Your task to perform on an android device: Play the last video I watched on Youtube Image 0: 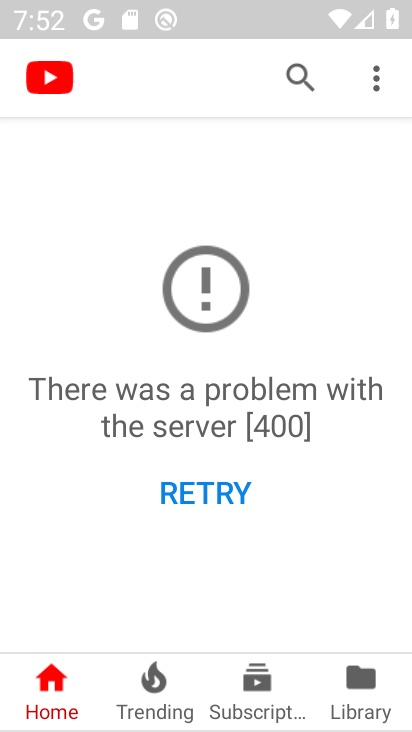
Step 0: press home button
Your task to perform on an android device: Play the last video I watched on Youtube Image 1: 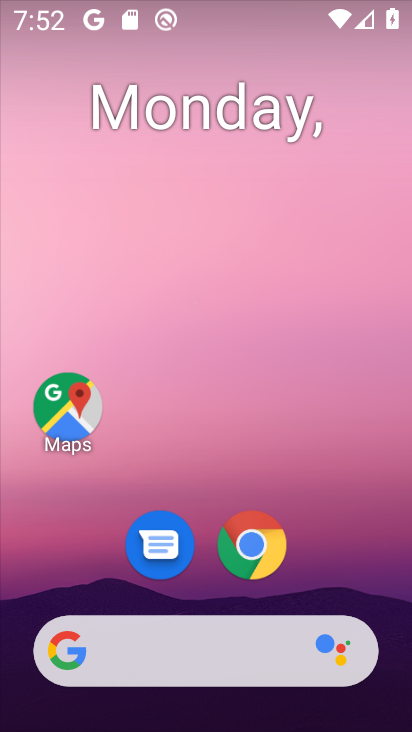
Step 1: drag from (182, 657) to (337, 142)
Your task to perform on an android device: Play the last video I watched on Youtube Image 2: 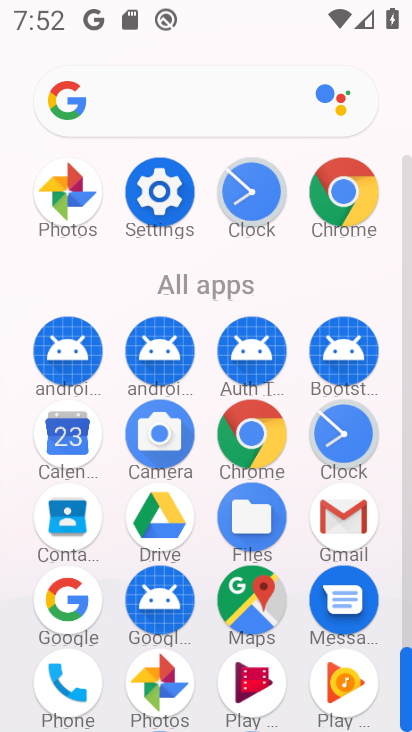
Step 2: drag from (207, 619) to (349, 153)
Your task to perform on an android device: Play the last video I watched on Youtube Image 3: 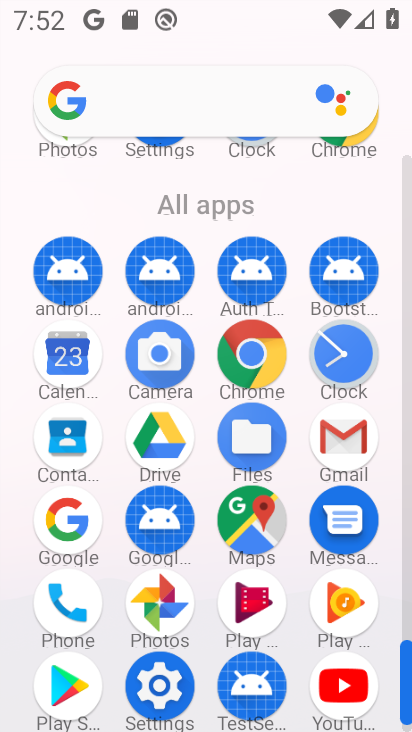
Step 3: click (334, 689)
Your task to perform on an android device: Play the last video I watched on Youtube Image 4: 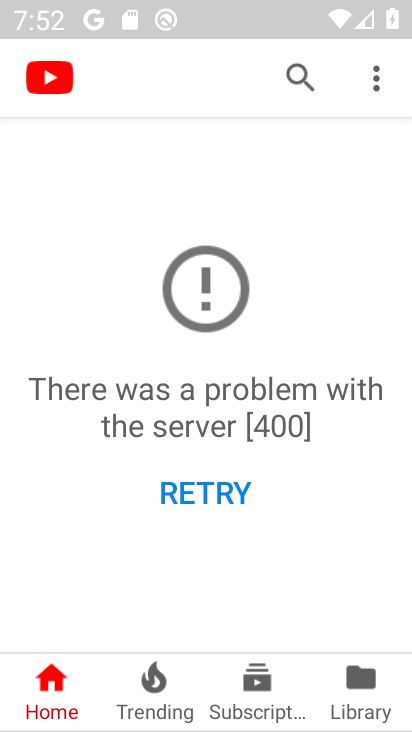
Step 4: click (228, 481)
Your task to perform on an android device: Play the last video I watched on Youtube Image 5: 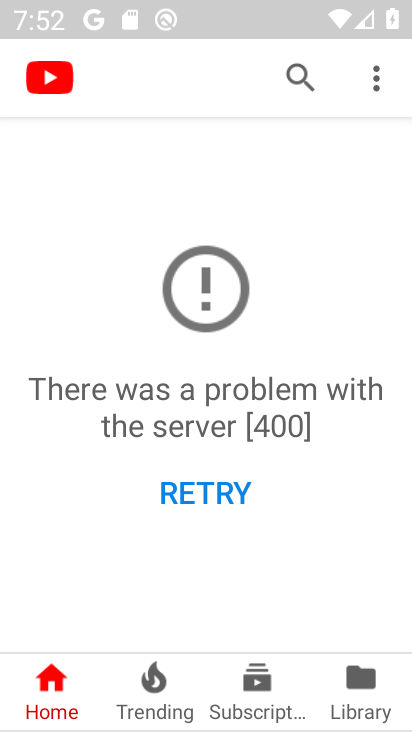
Step 5: click (212, 495)
Your task to perform on an android device: Play the last video I watched on Youtube Image 6: 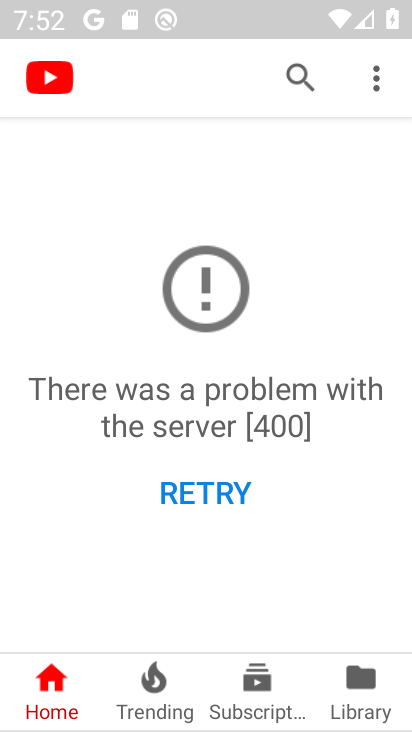
Step 6: click (212, 495)
Your task to perform on an android device: Play the last video I watched on Youtube Image 7: 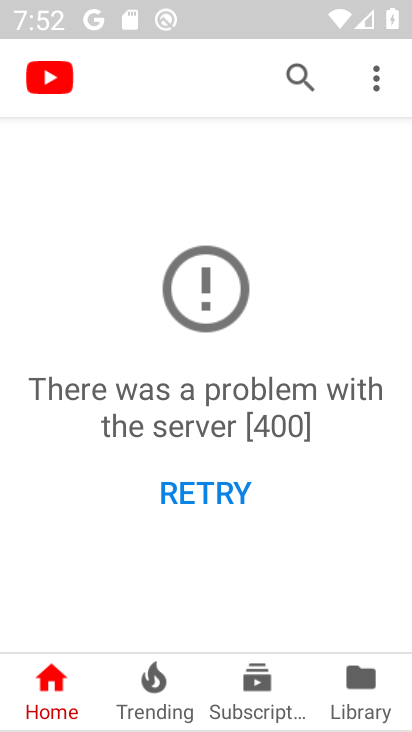
Step 7: task complete